Your task to perform on an android device: find snoozed emails in the gmail app Image 0: 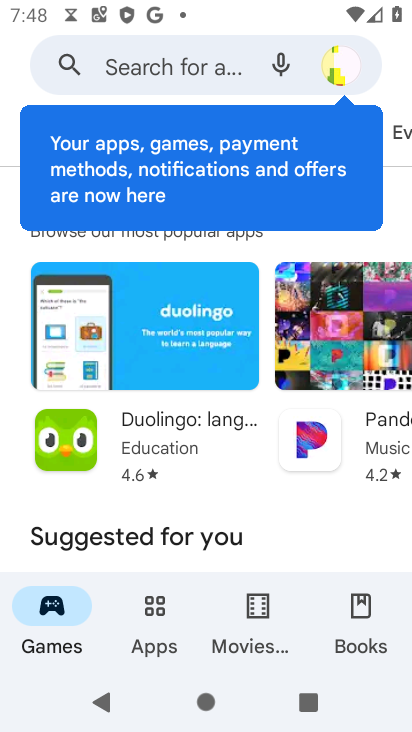
Step 0: press home button
Your task to perform on an android device: find snoozed emails in the gmail app Image 1: 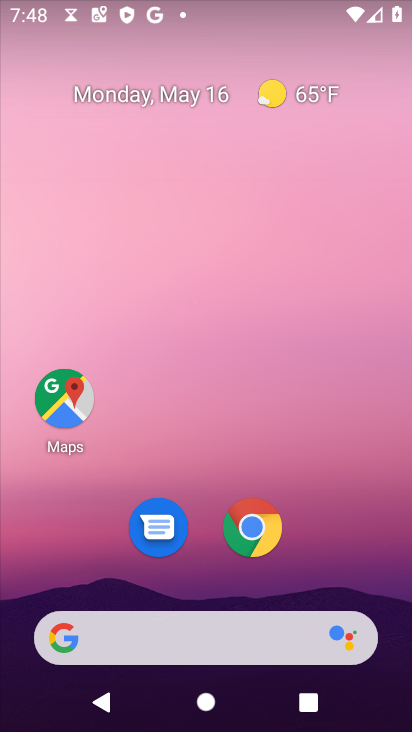
Step 1: drag from (321, 566) to (345, 228)
Your task to perform on an android device: find snoozed emails in the gmail app Image 2: 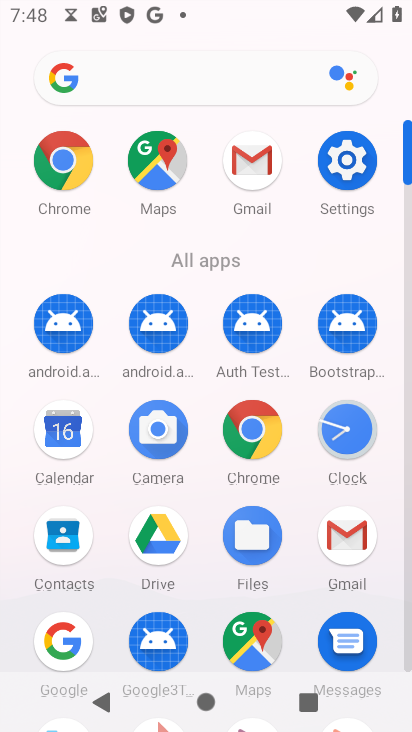
Step 2: click (341, 520)
Your task to perform on an android device: find snoozed emails in the gmail app Image 3: 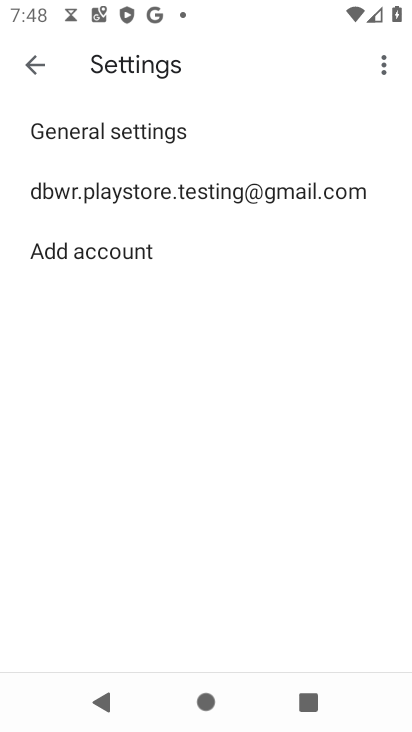
Step 3: click (36, 63)
Your task to perform on an android device: find snoozed emails in the gmail app Image 4: 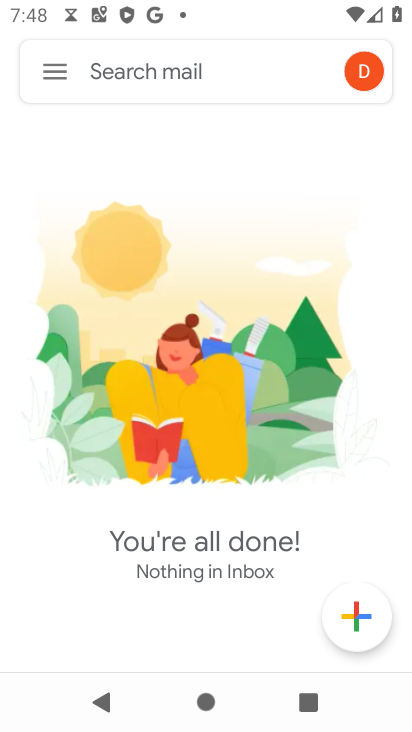
Step 4: click (43, 63)
Your task to perform on an android device: find snoozed emails in the gmail app Image 5: 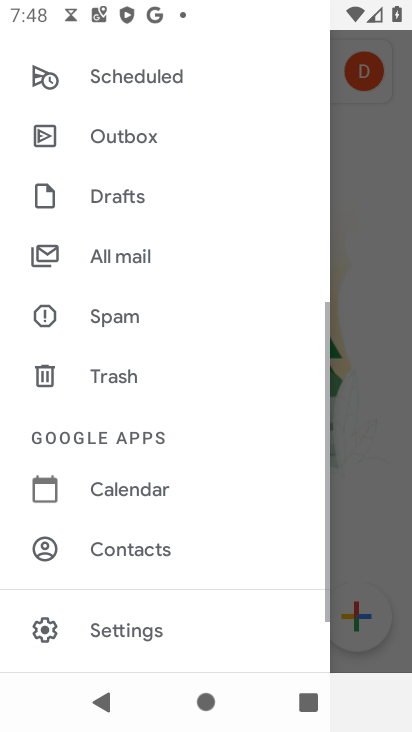
Step 5: drag from (162, 183) to (135, 602)
Your task to perform on an android device: find snoozed emails in the gmail app Image 6: 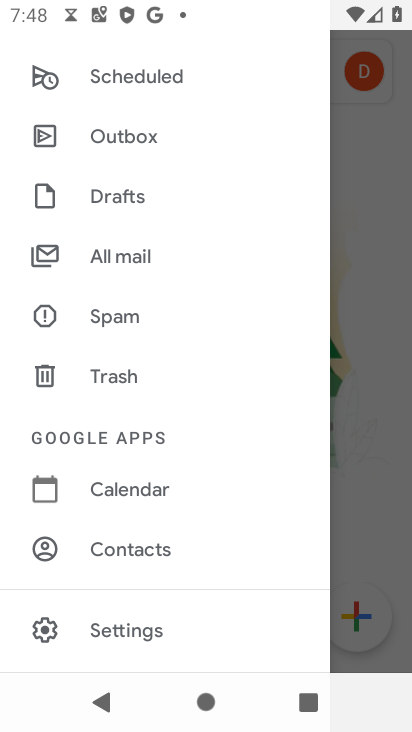
Step 6: drag from (139, 259) to (138, 601)
Your task to perform on an android device: find snoozed emails in the gmail app Image 7: 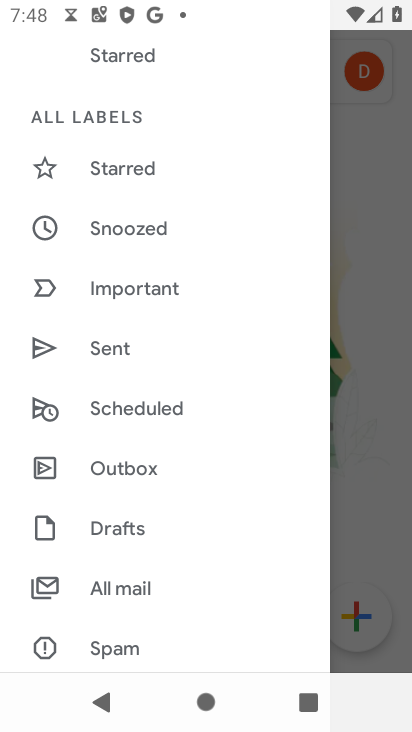
Step 7: click (140, 224)
Your task to perform on an android device: find snoozed emails in the gmail app Image 8: 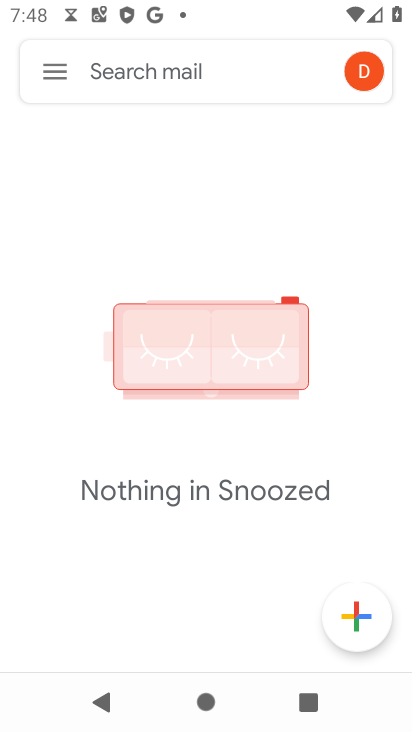
Step 8: task complete